Your task to perform on an android device: toggle notifications settings in the gmail app Image 0: 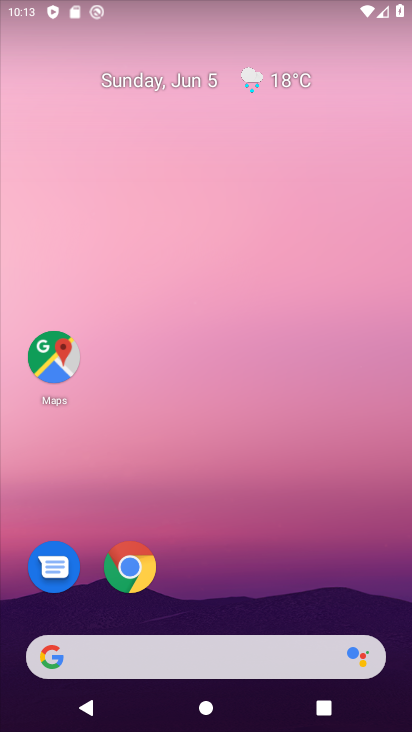
Step 0: drag from (173, 453) to (187, 104)
Your task to perform on an android device: toggle notifications settings in the gmail app Image 1: 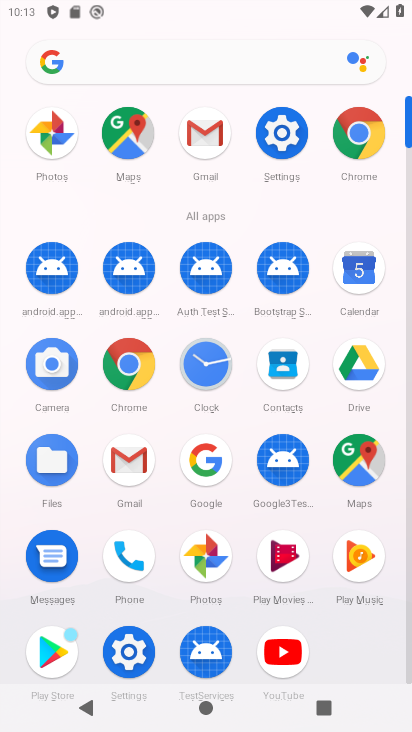
Step 1: drag from (232, 608) to (243, 188)
Your task to perform on an android device: toggle notifications settings in the gmail app Image 2: 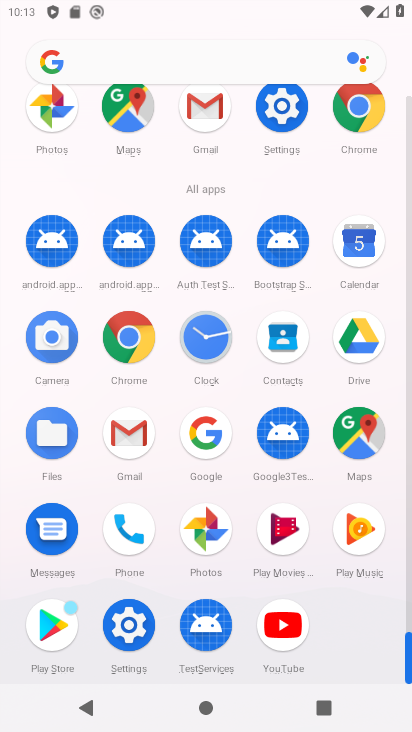
Step 2: click (199, 127)
Your task to perform on an android device: toggle notifications settings in the gmail app Image 3: 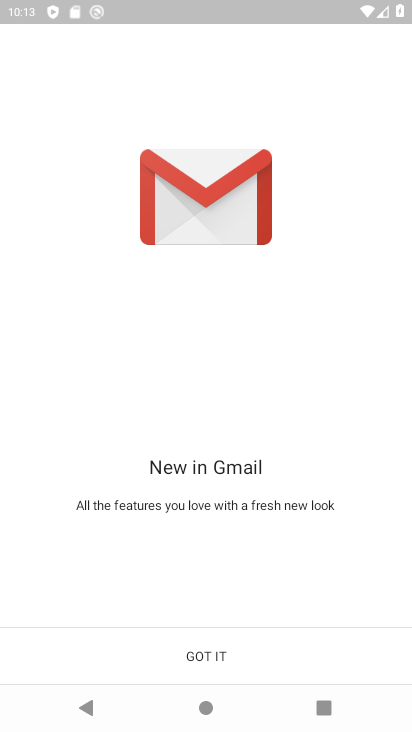
Step 3: click (159, 659)
Your task to perform on an android device: toggle notifications settings in the gmail app Image 4: 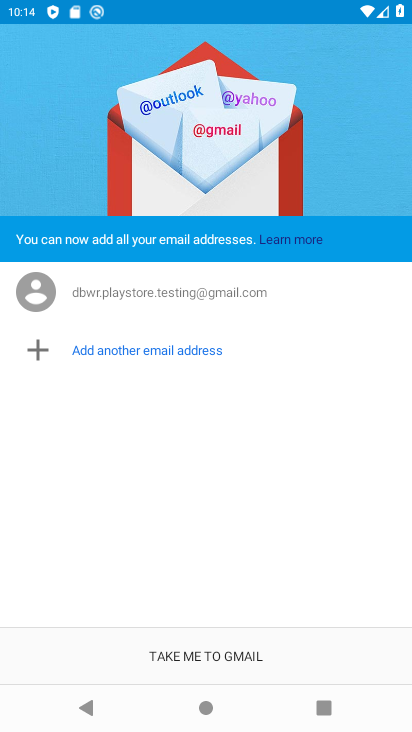
Step 4: click (159, 659)
Your task to perform on an android device: toggle notifications settings in the gmail app Image 5: 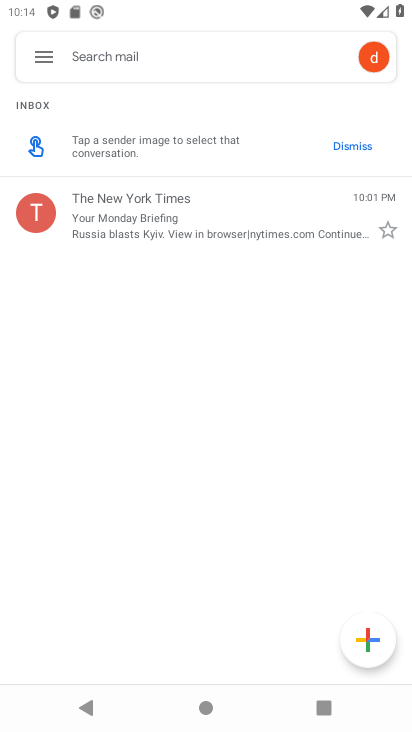
Step 5: click (33, 60)
Your task to perform on an android device: toggle notifications settings in the gmail app Image 6: 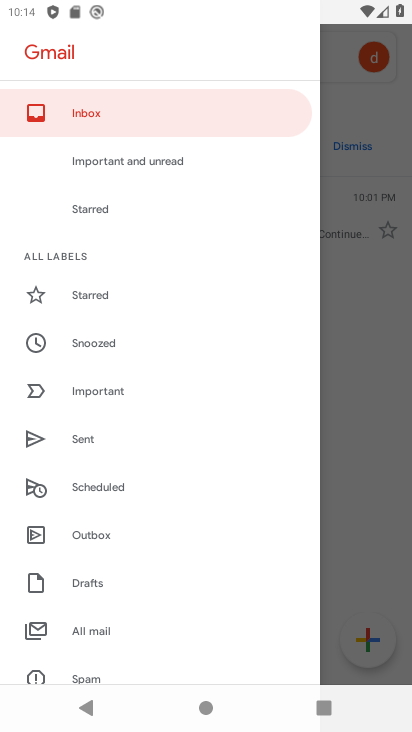
Step 6: drag from (78, 665) to (96, 348)
Your task to perform on an android device: toggle notifications settings in the gmail app Image 7: 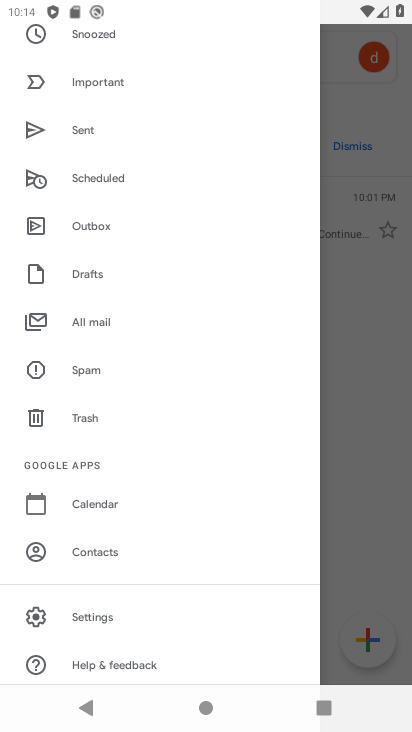
Step 7: click (97, 617)
Your task to perform on an android device: toggle notifications settings in the gmail app Image 8: 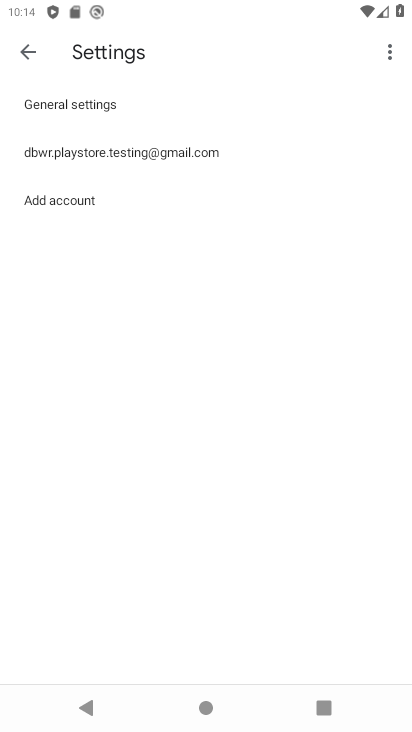
Step 8: click (223, 148)
Your task to perform on an android device: toggle notifications settings in the gmail app Image 9: 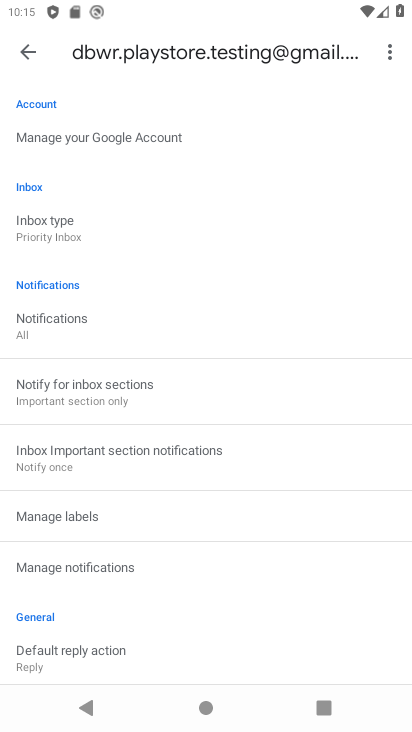
Step 9: click (87, 330)
Your task to perform on an android device: toggle notifications settings in the gmail app Image 10: 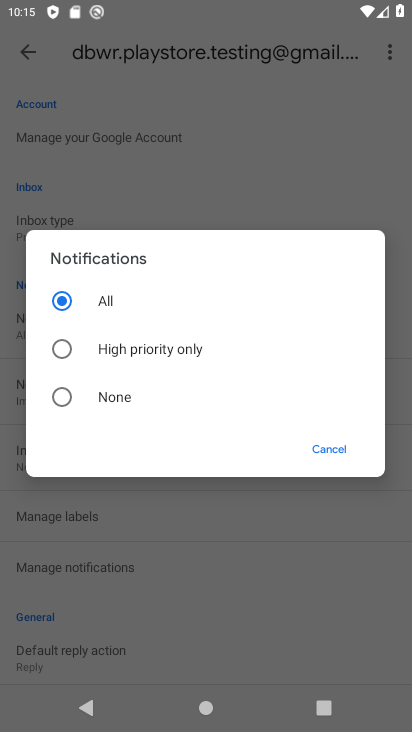
Step 10: click (120, 354)
Your task to perform on an android device: toggle notifications settings in the gmail app Image 11: 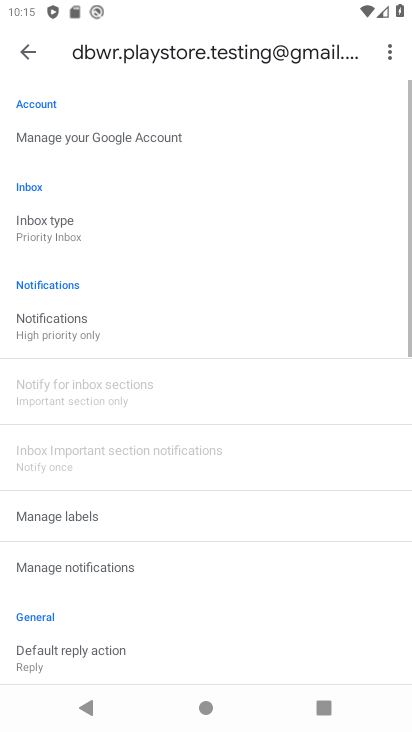
Step 11: task complete